Your task to perform on an android device: set the stopwatch Image 0: 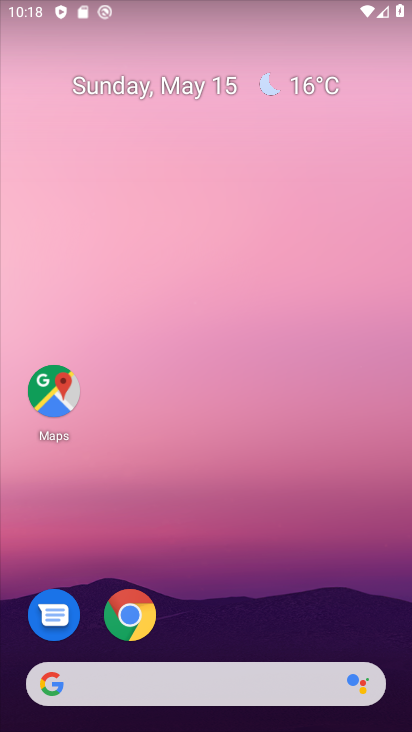
Step 0: drag from (303, 686) to (295, 0)
Your task to perform on an android device: set the stopwatch Image 1: 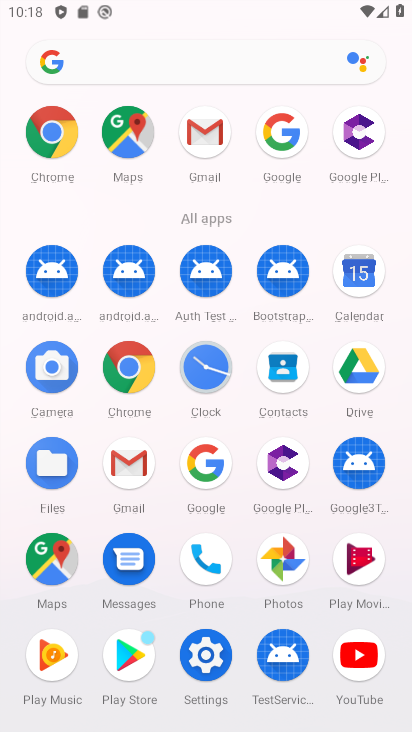
Step 1: click (196, 375)
Your task to perform on an android device: set the stopwatch Image 2: 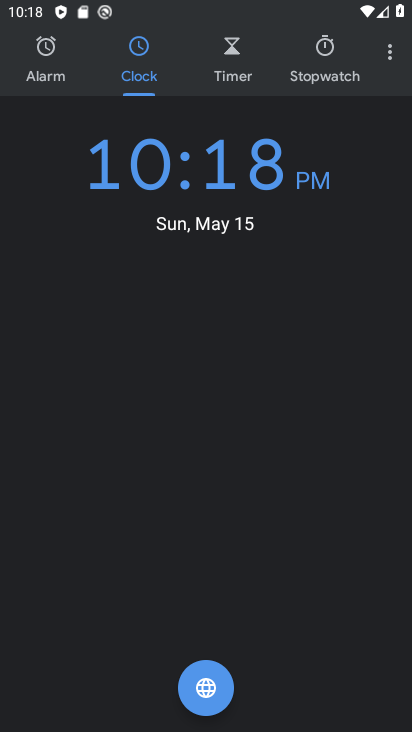
Step 2: click (314, 48)
Your task to perform on an android device: set the stopwatch Image 3: 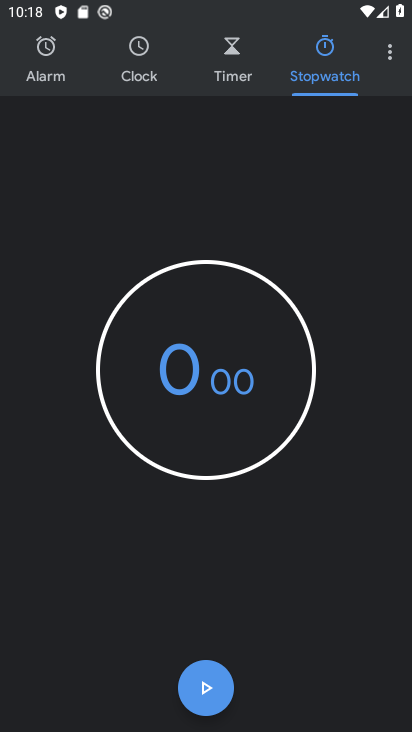
Step 3: click (218, 702)
Your task to perform on an android device: set the stopwatch Image 4: 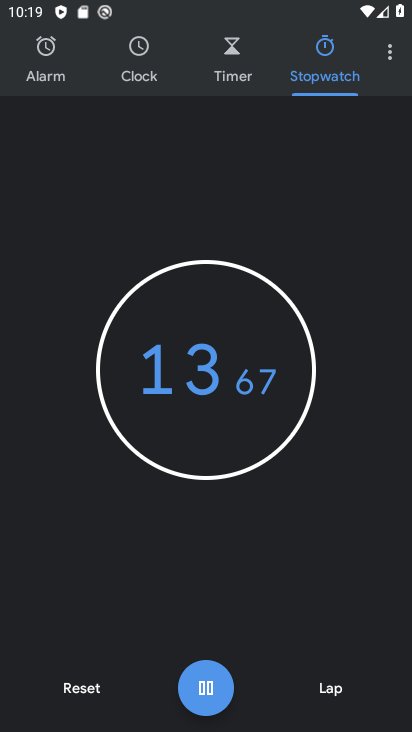
Step 4: task complete